Your task to perform on an android device: open app "DoorDash - Dasher" (install if not already installed) Image 0: 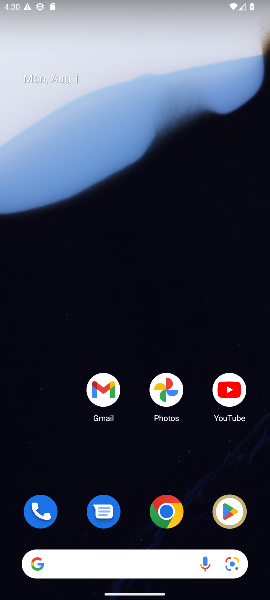
Step 0: click (228, 504)
Your task to perform on an android device: open app "DoorDash - Dasher" (install if not already installed) Image 1: 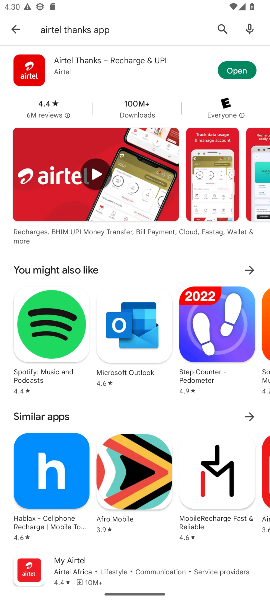
Step 1: click (14, 24)
Your task to perform on an android device: open app "DoorDash - Dasher" (install if not already installed) Image 2: 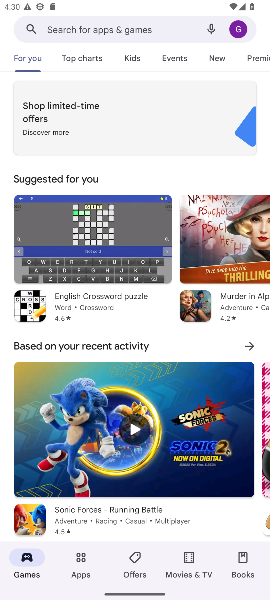
Step 2: click (126, 34)
Your task to perform on an android device: open app "DoorDash - Dasher" (install if not already installed) Image 3: 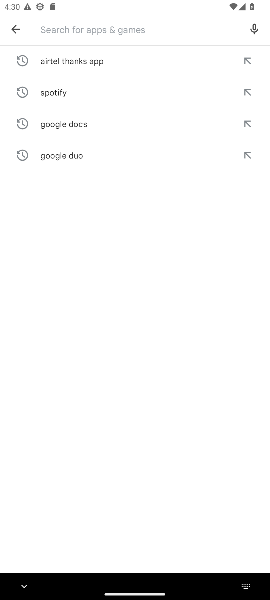
Step 3: type "DoorDash - Dasher"
Your task to perform on an android device: open app "DoorDash - Dasher" (install if not already installed) Image 4: 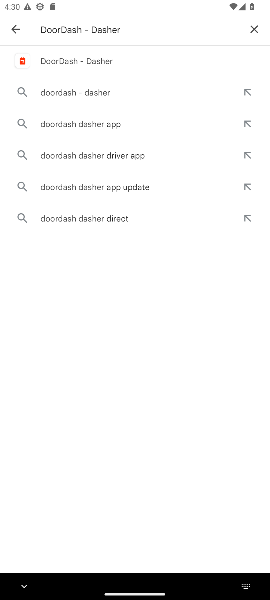
Step 4: click (88, 65)
Your task to perform on an android device: open app "DoorDash - Dasher" (install if not already installed) Image 5: 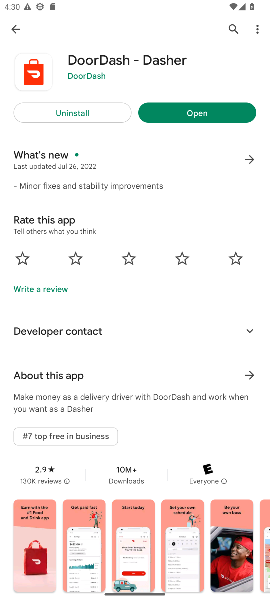
Step 5: click (201, 106)
Your task to perform on an android device: open app "DoorDash - Dasher" (install if not already installed) Image 6: 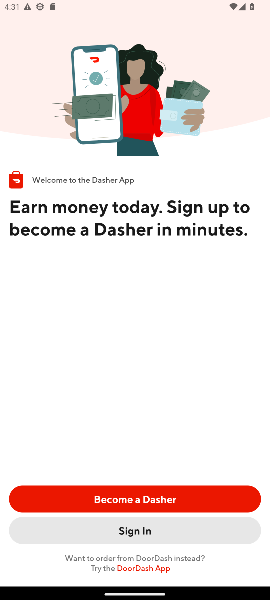
Step 6: task complete